Your task to perform on an android device: Go to network settings Image 0: 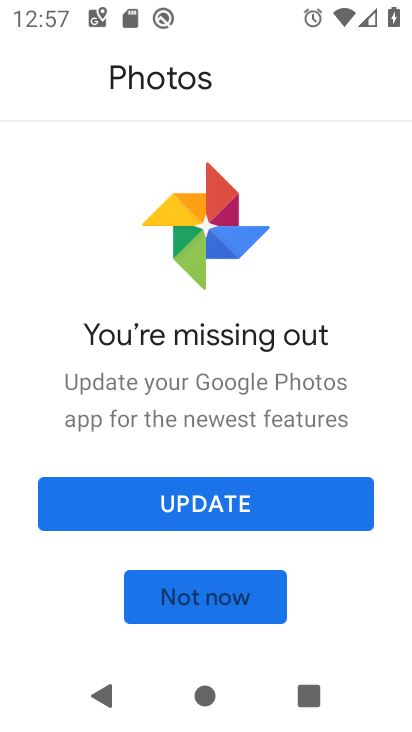
Step 0: press home button
Your task to perform on an android device: Go to network settings Image 1: 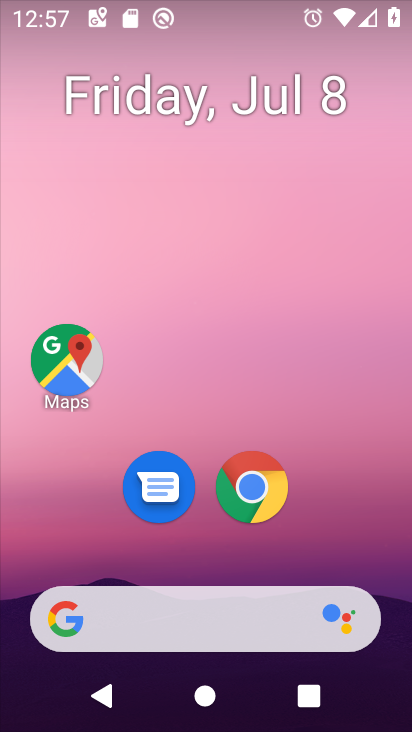
Step 1: drag from (334, 538) to (357, 185)
Your task to perform on an android device: Go to network settings Image 2: 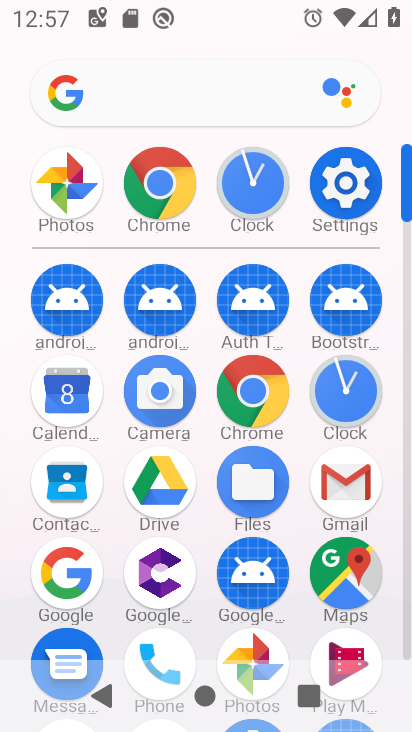
Step 2: click (355, 191)
Your task to perform on an android device: Go to network settings Image 3: 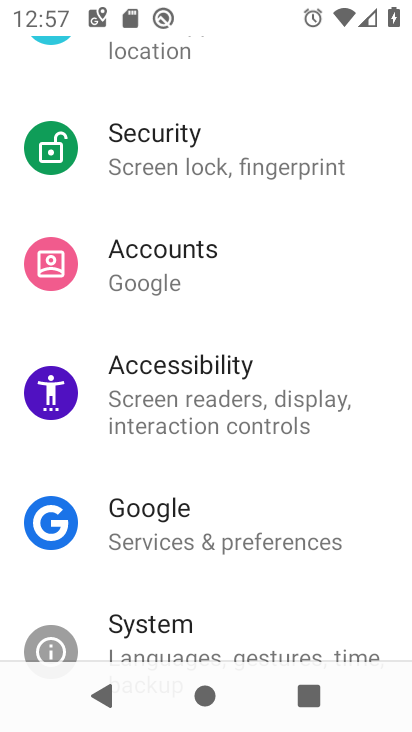
Step 3: drag from (365, 306) to (370, 390)
Your task to perform on an android device: Go to network settings Image 4: 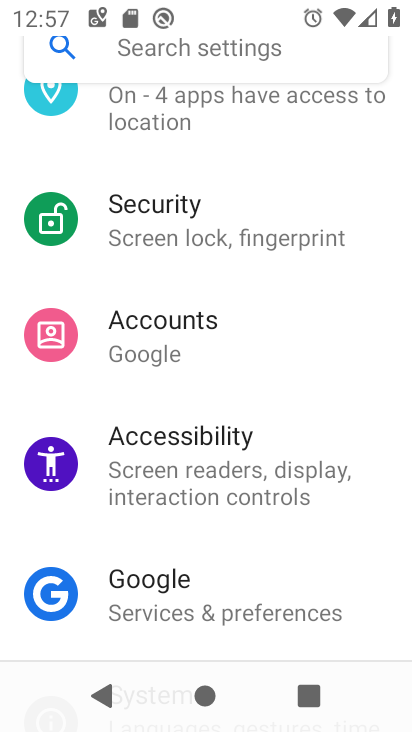
Step 4: drag from (365, 269) to (368, 381)
Your task to perform on an android device: Go to network settings Image 5: 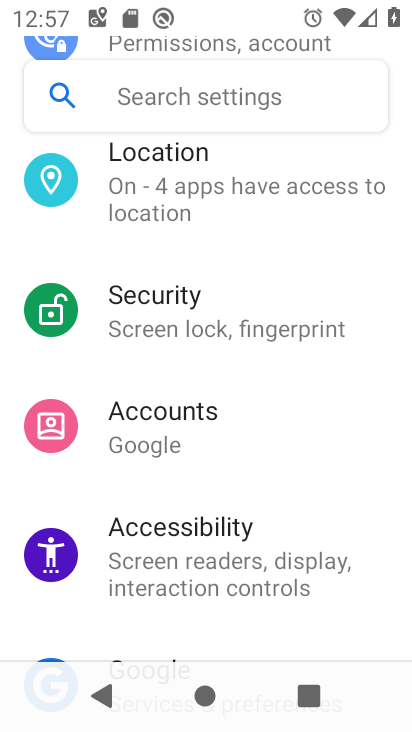
Step 5: drag from (354, 249) to (351, 394)
Your task to perform on an android device: Go to network settings Image 6: 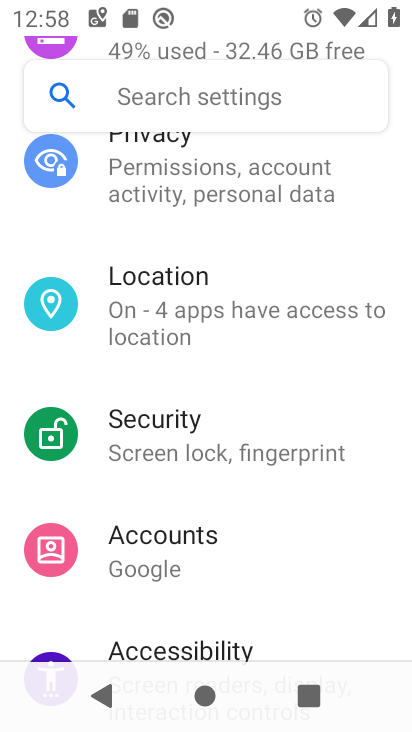
Step 6: drag from (375, 187) to (353, 350)
Your task to perform on an android device: Go to network settings Image 7: 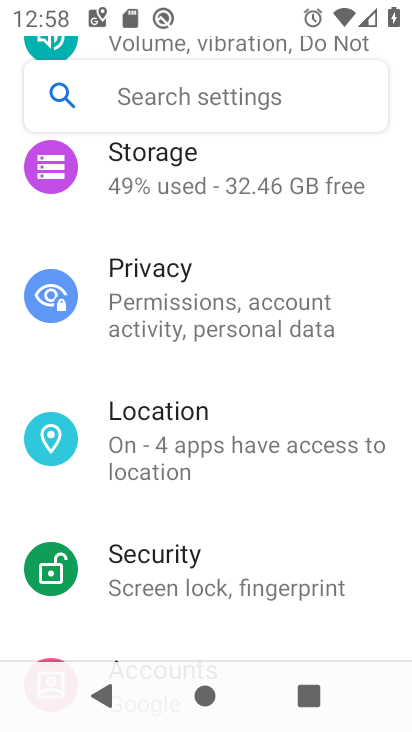
Step 7: drag from (355, 248) to (372, 375)
Your task to perform on an android device: Go to network settings Image 8: 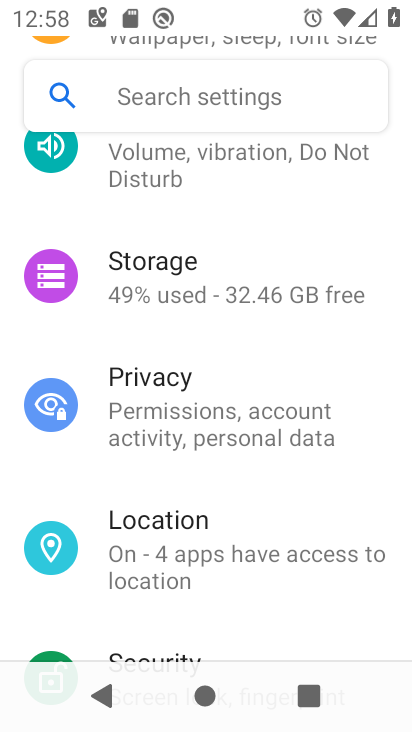
Step 8: drag from (364, 231) to (349, 379)
Your task to perform on an android device: Go to network settings Image 9: 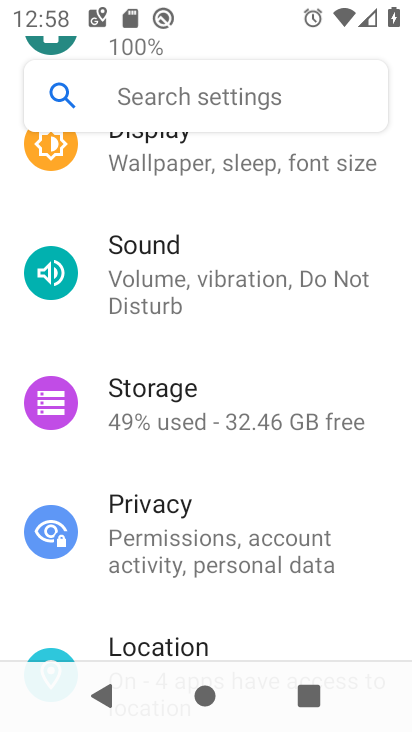
Step 9: drag from (362, 332) to (371, 422)
Your task to perform on an android device: Go to network settings Image 10: 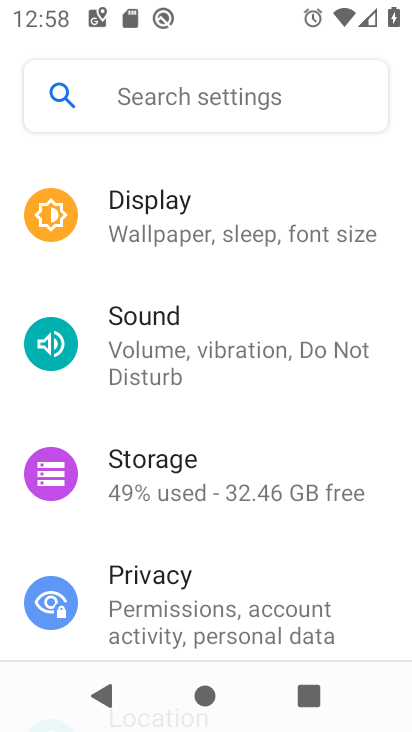
Step 10: drag from (376, 311) to (391, 421)
Your task to perform on an android device: Go to network settings Image 11: 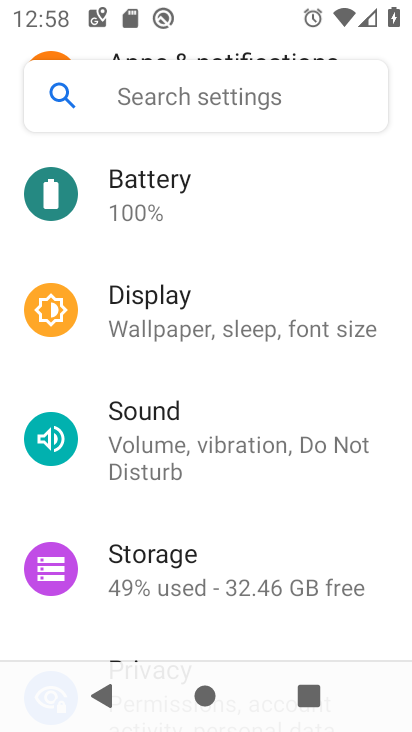
Step 11: drag from (377, 269) to (369, 384)
Your task to perform on an android device: Go to network settings Image 12: 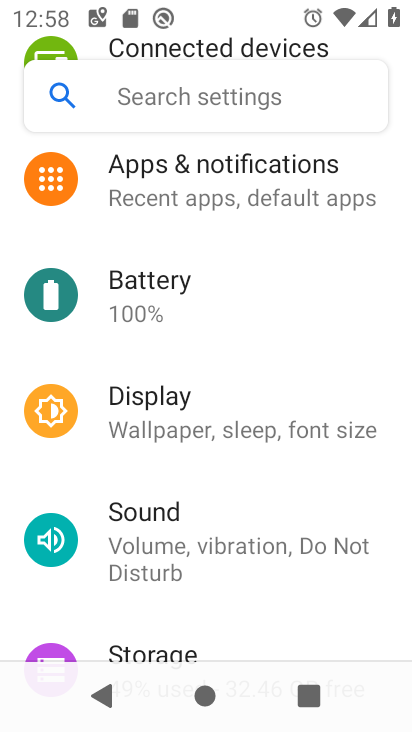
Step 12: drag from (370, 245) to (367, 390)
Your task to perform on an android device: Go to network settings Image 13: 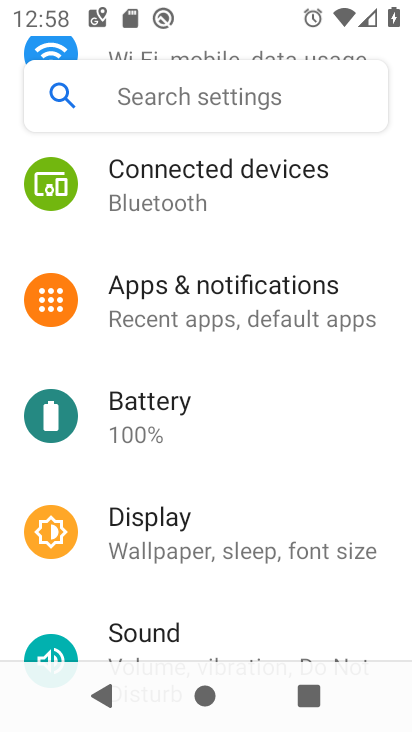
Step 13: drag from (364, 213) to (375, 356)
Your task to perform on an android device: Go to network settings Image 14: 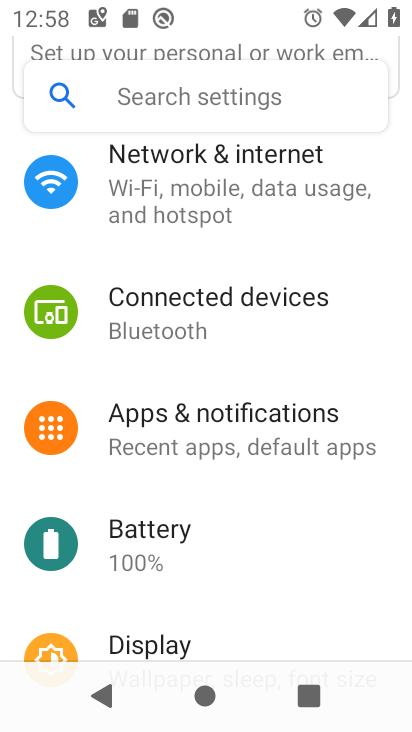
Step 14: drag from (381, 200) to (377, 372)
Your task to perform on an android device: Go to network settings Image 15: 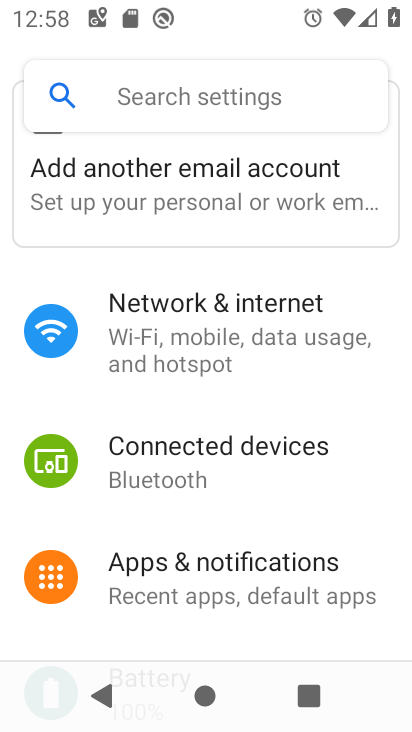
Step 15: click (257, 328)
Your task to perform on an android device: Go to network settings Image 16: 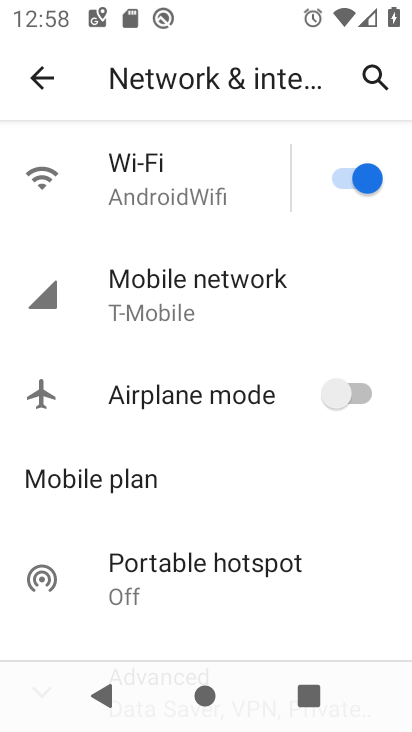
Step 16: task complete